Your task to perform on an android device: Add sony triple a to the cart on walmart Image 0: 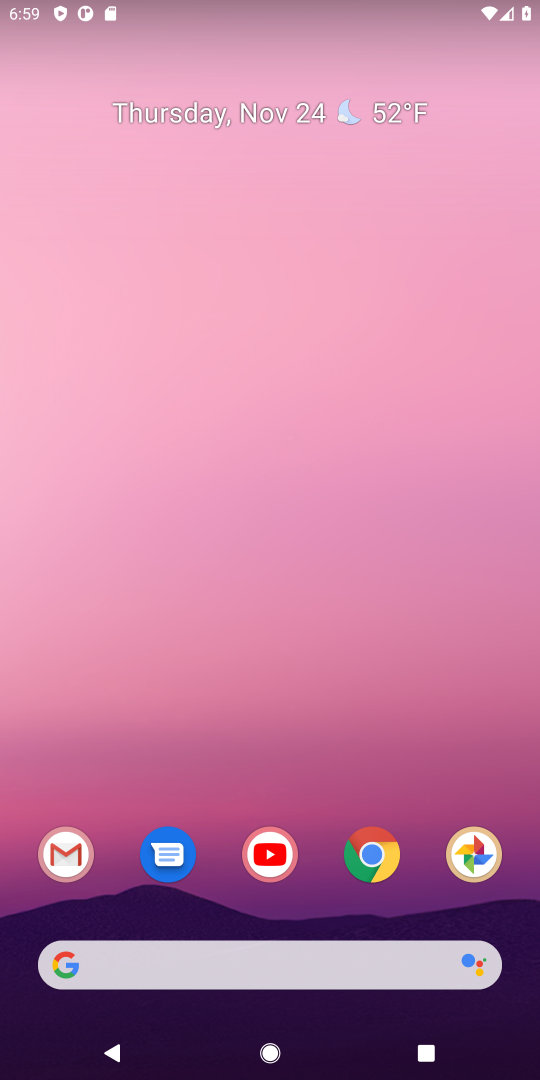
Step 0: click (363, 860)
Your task to perform on an android device: Add sony triple a to the cart on walmart Image 1: 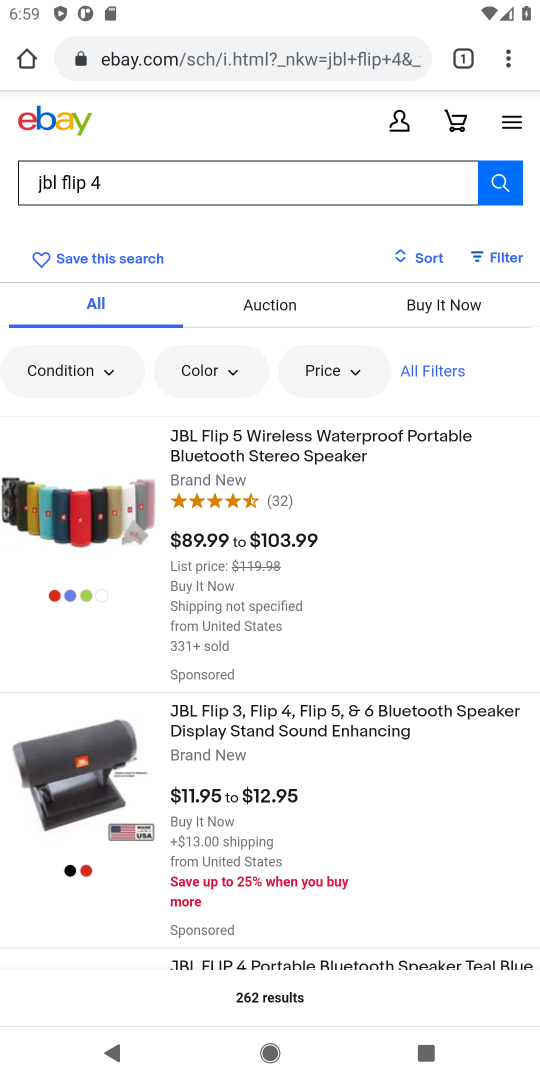
Step 1: click (182, 69)
Your task to perform on an android device: Add sony triple a to the cart on walmart Image 2: 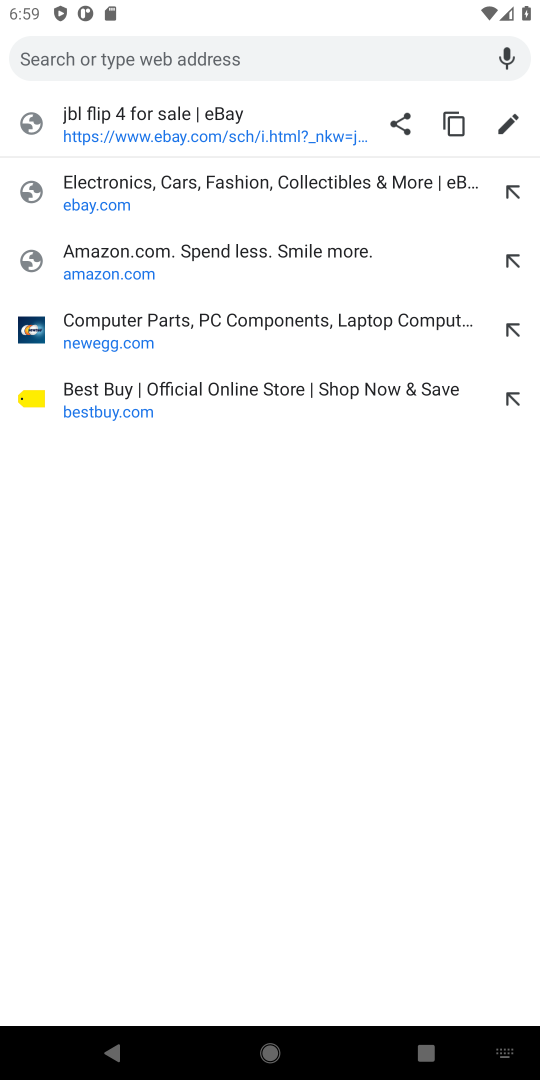
Step 2: type "walmart.com"
Your task to perform on an android device: Add sony triple a to the cart on walmart Image 3: 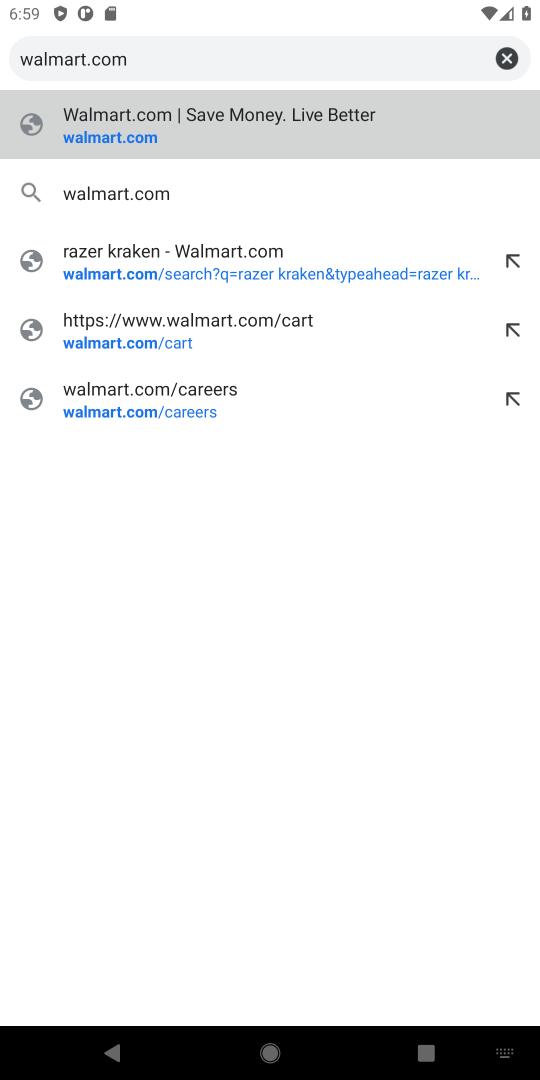
Step 3: click (99, 142)
Your task to perform on an android device: Add sony triple a to the cart on walmart Image 4: 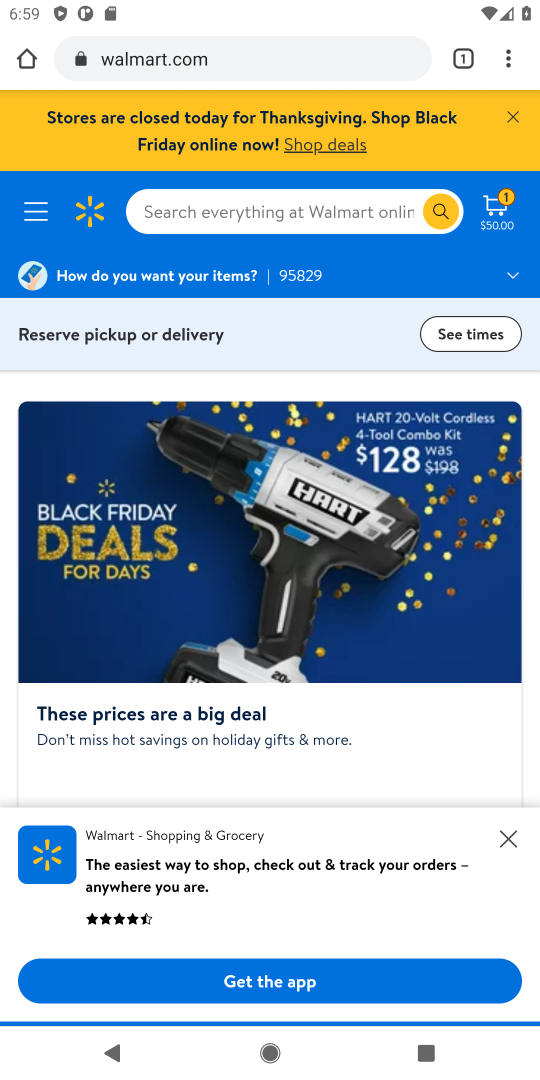
Step 4: click (327, 218)
Your task to perform on an android device: Add sony triple a to the cart on walmart Image 5: 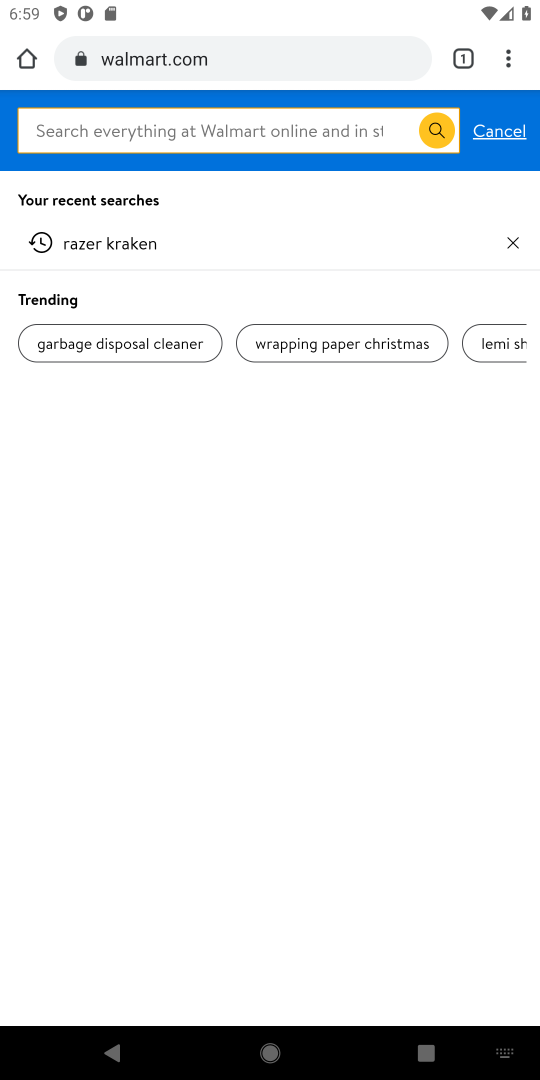
Step 5: type "sony triple a "
Your task to perform on an android device: Add sony triple a to the cart on walmart Image 6: 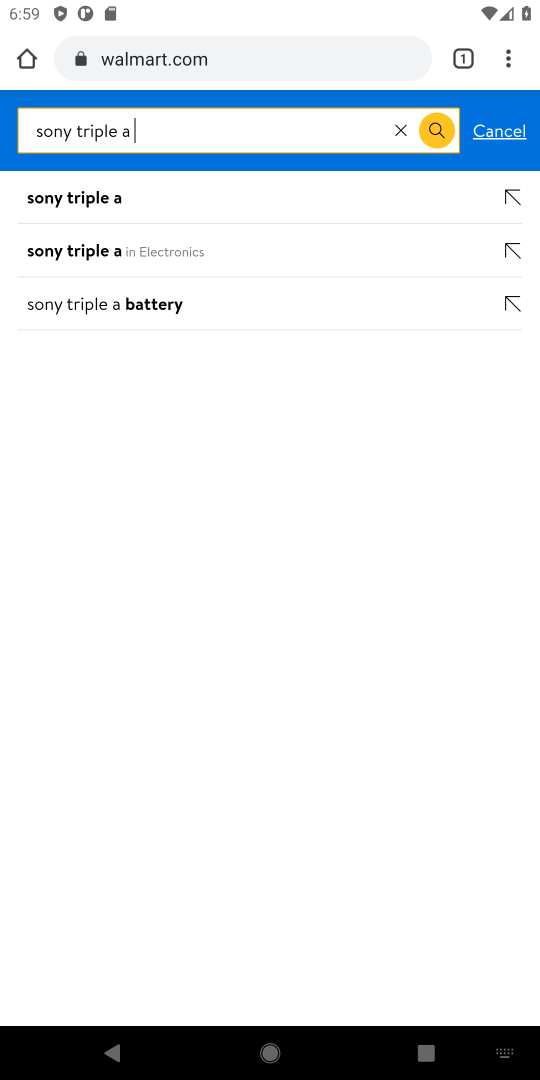
Step 6: click (56, 202)
Your task to perform on an android device: Add sony triple a to the cart on walmart Image 7: 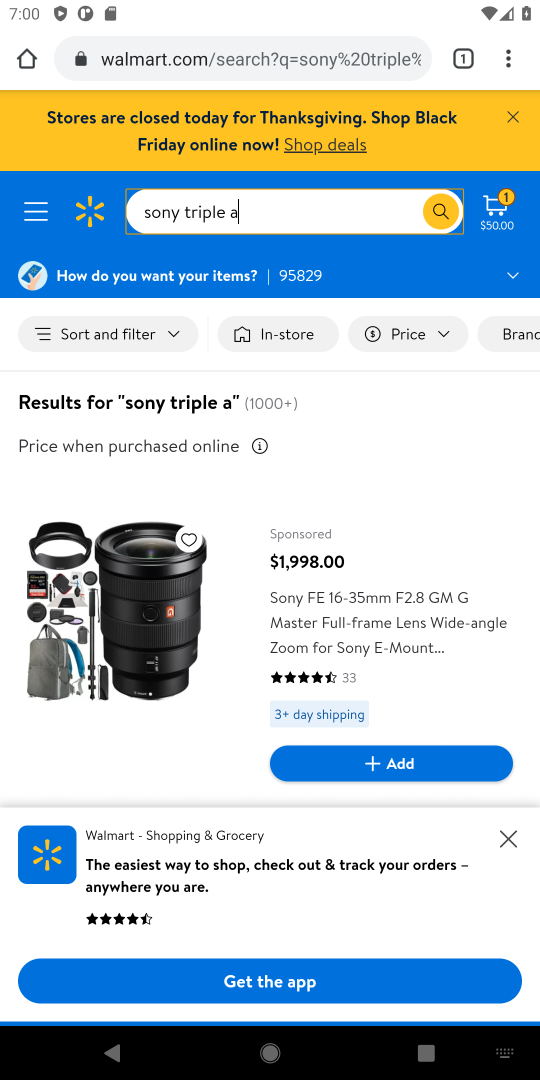
Step 7: drag from (167, 669) to (155, 286)
Your task to perform on an android device: Add sony triple a to the cart on walmart Image 8: 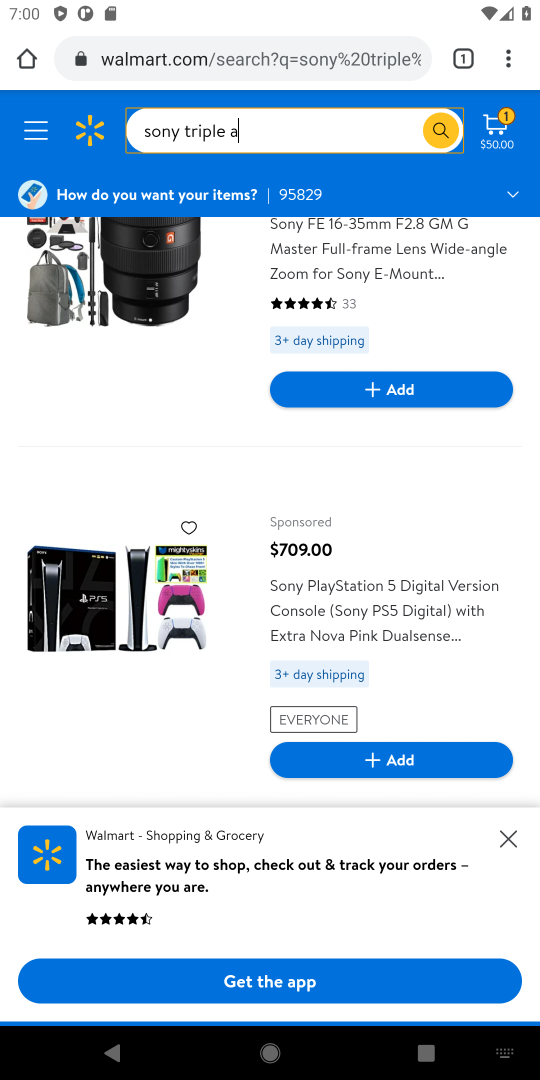
Step 8: click (513, 845)
Your task to perform on an android device: Add sony triple a to the cart on walmart Image 9: 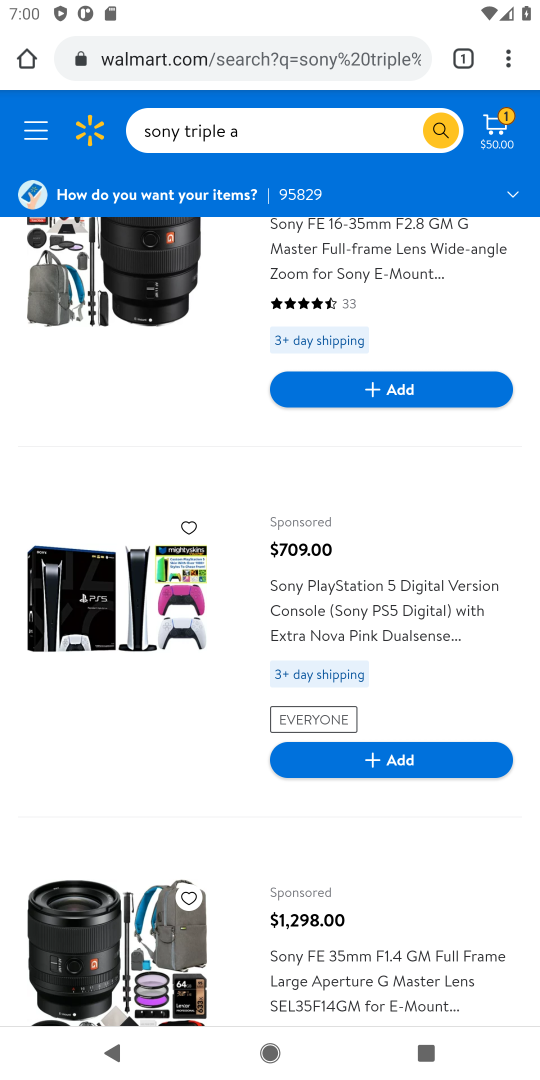
Step 9: drag from (145, 653) to (108, 250)
Your task to perform on an android device: Add sony triple a to the cart on walmart Image 10: 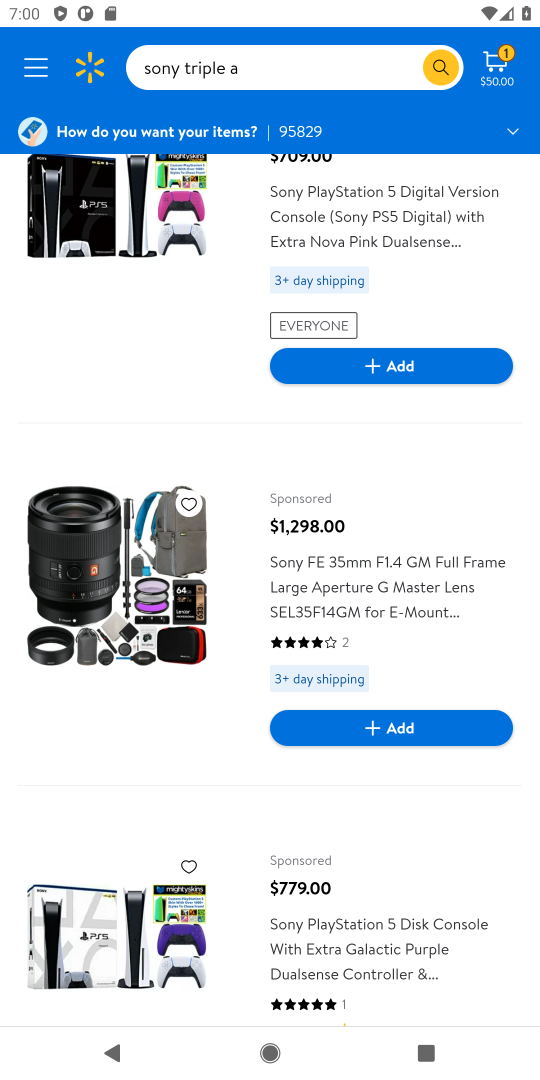
Step 10: drag from (102, 681) to (87, 289)
Your task to perform on an android device: Add sony triple a to the cart on walmart Image 11: 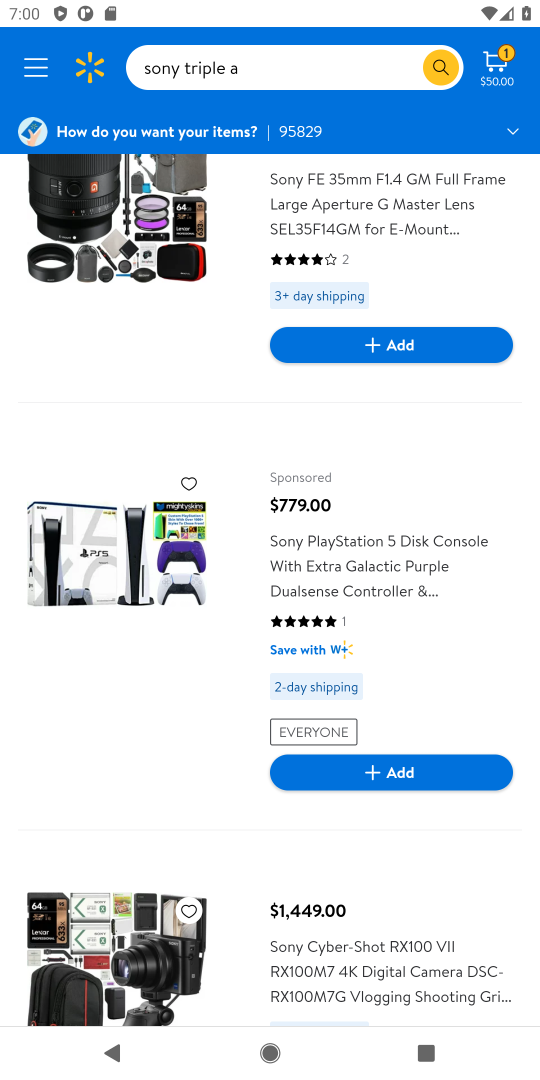
Step 11: drag from (89, 699) to (79, 362)
Your task to perform on an android device: Add sony triple a to the cart on walmart Image 12: 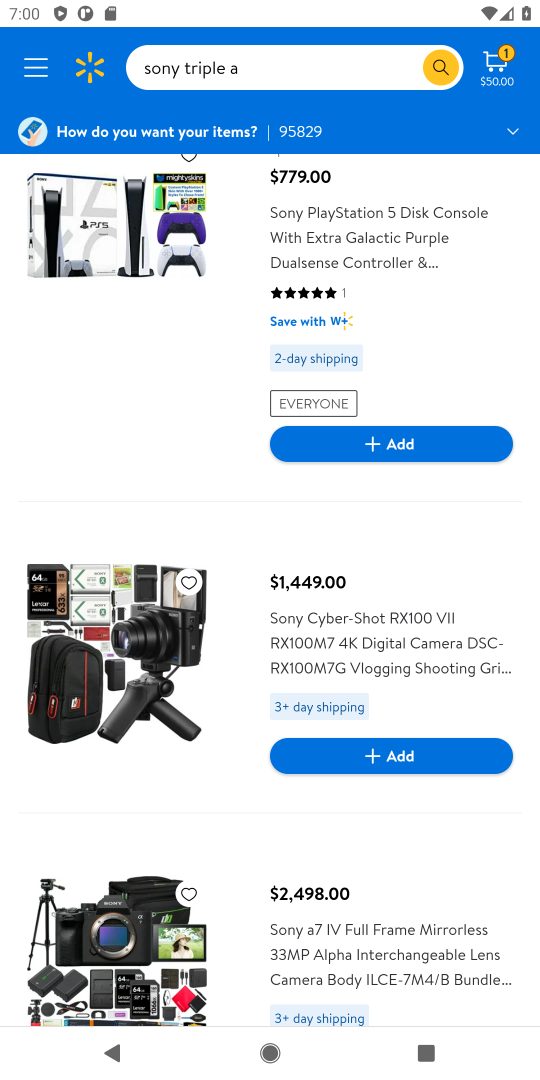
Step 12: drag from (137, 834) to (134, 343)
Your task to perform on an android device: Add sony triple a to the cart on walmart Image 13: 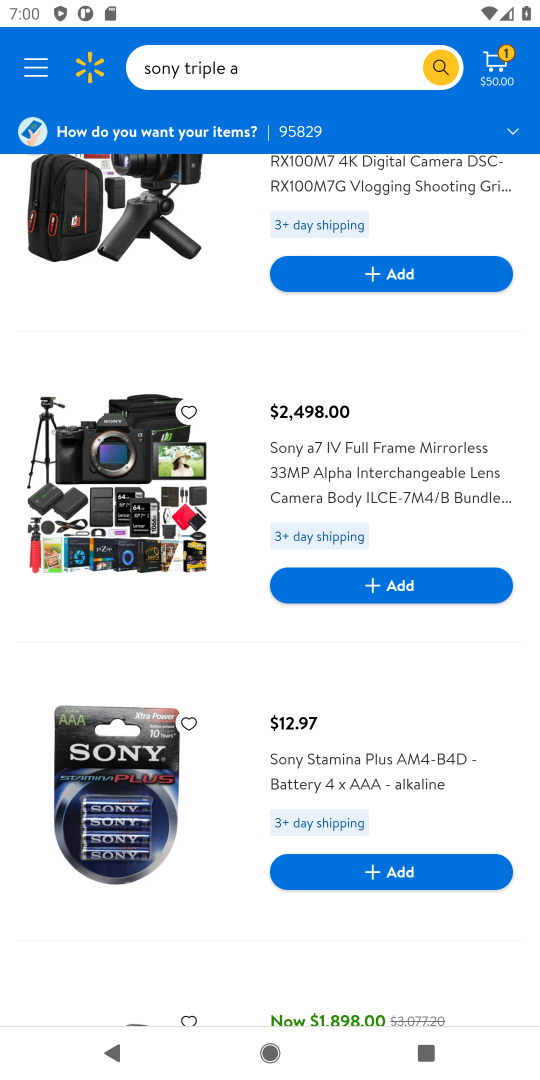
Step 13: drag from (126, 817) to (132, 524)
Your task to perform on an android device: Add sony triple a to the cart on walmart Image 14: 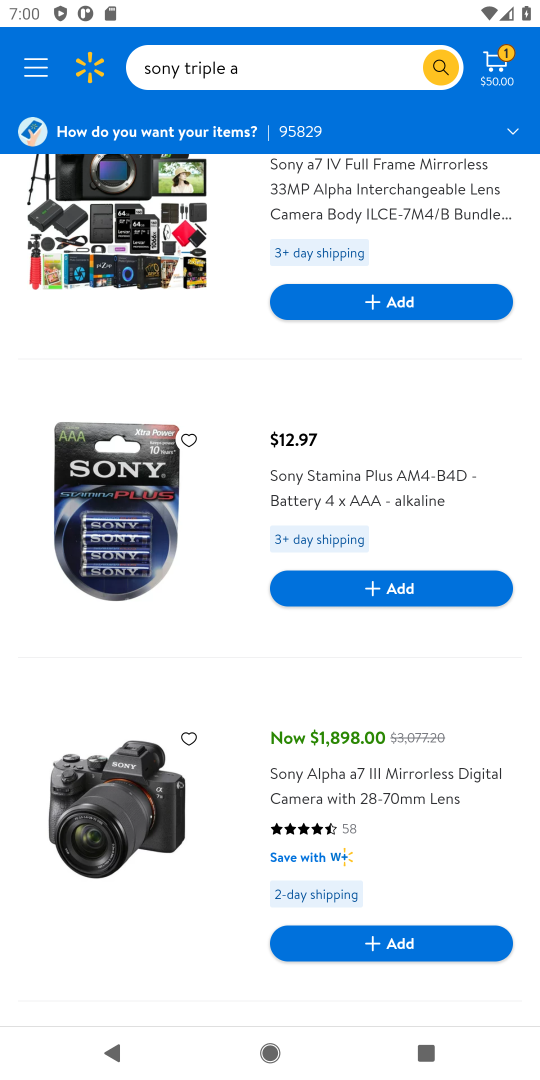
Step 14: click (398, 592)
Your task to perform on an android device: Add sony triple a to the cart on walmart Image 15: 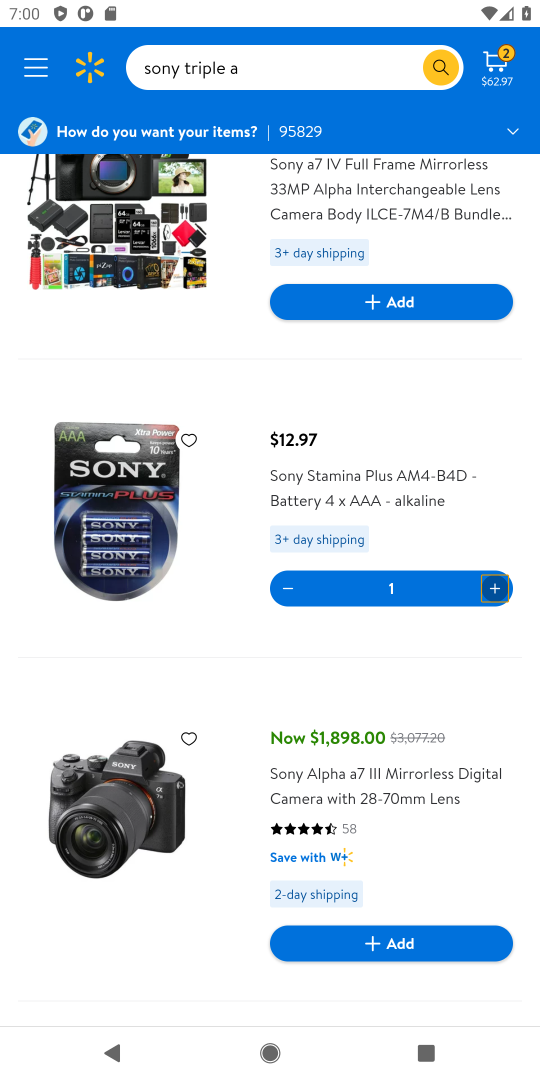
Step 15: task complete